Your task to perform on an android device: open chrome privacy settings Image 0: 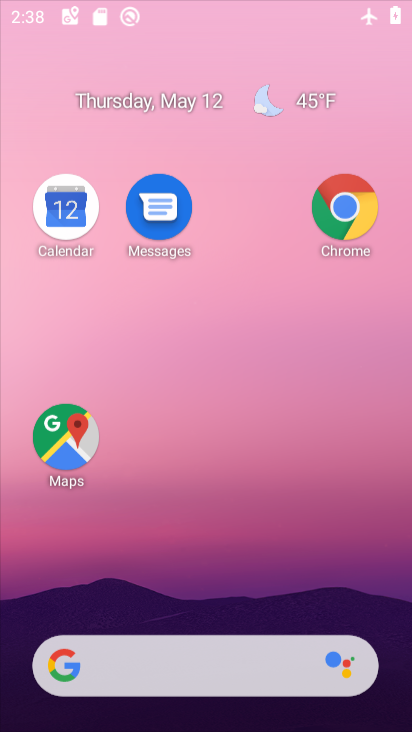
Step 0: click (211, 402)
Your task to perform on an android device: open chrome privacy settings Image 1: 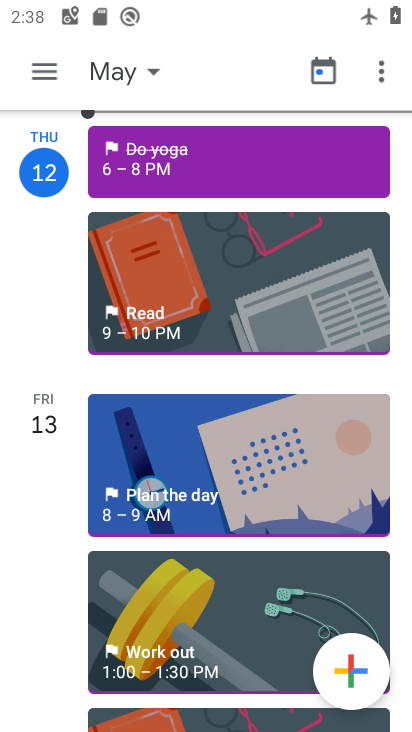
Step 1: drag from (267, 661) to (264, 308)
Your task to perform on an android device: open chrome privacy settings Image 2: 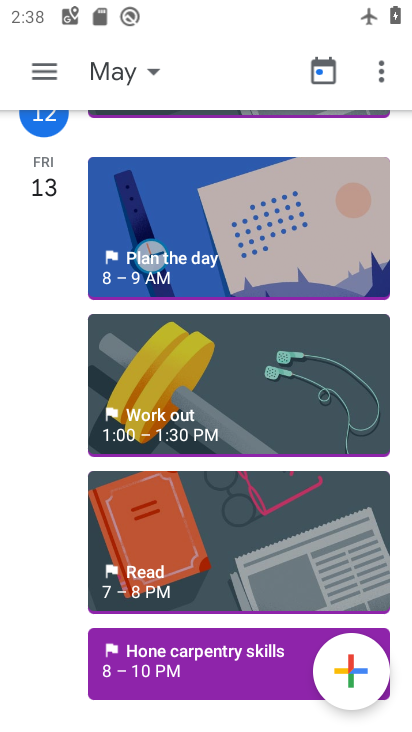
Step 2: drag from (215, 640) to (212, 321)
Your task to perform on an android device: open chrome privacy settings Image 3: 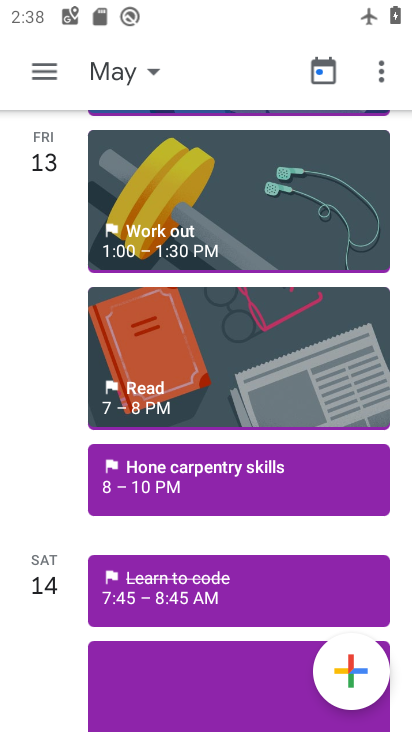
Step 3: drag from (215, 237) to (256, 728)
Your task to perform on an android device: open chrome privacy settings Image 4: 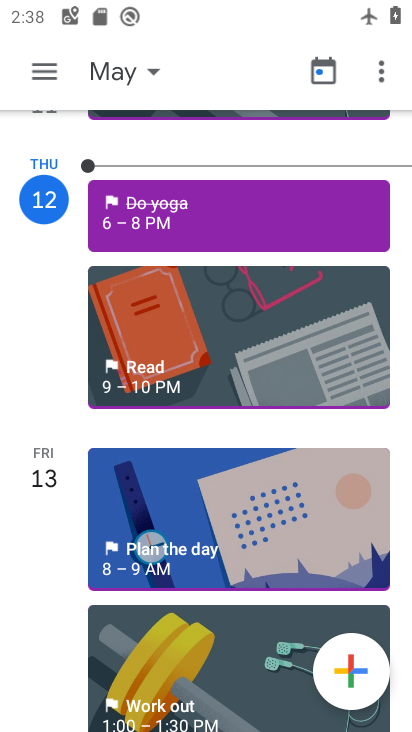
Step 4: press home button
Your task to perform on an android device: open chrome privacy settings Image 5: 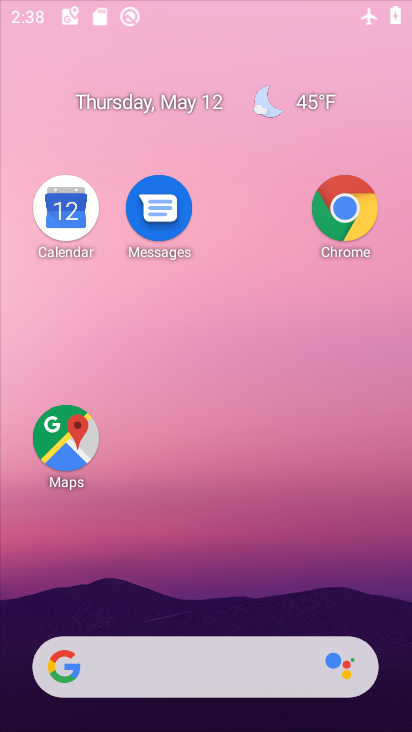
Step 5: drag from (214, 686) to (300, 196)
Your task to perform on an android device: open chrome privacy settings Image 6: 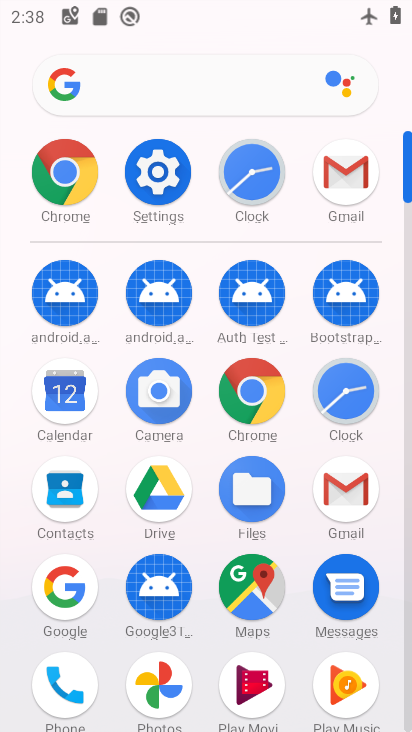
Step 6: click (251, 388)
Your task to perform on an android device: open chrome privacy settings Image 7: 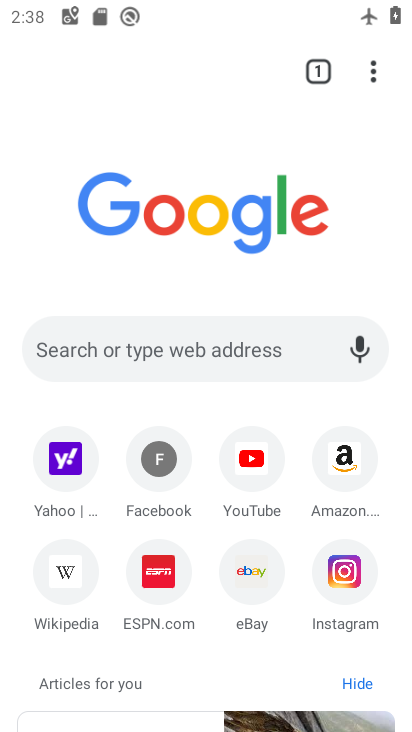
Step 7: drag from (375, 77) to (171, 598)
Your task to perform on an android device: open chrome privacy settings Image 8: 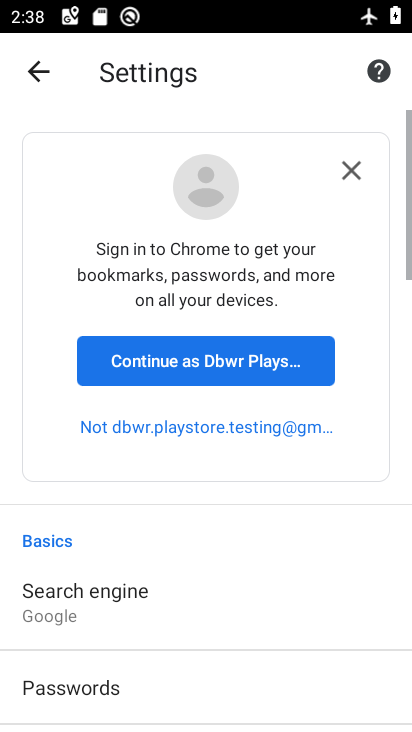
Step 8: drag from (169, 588) to (254, 55)
Your task to perform on an android device: open chrome privacy settings Image 9: 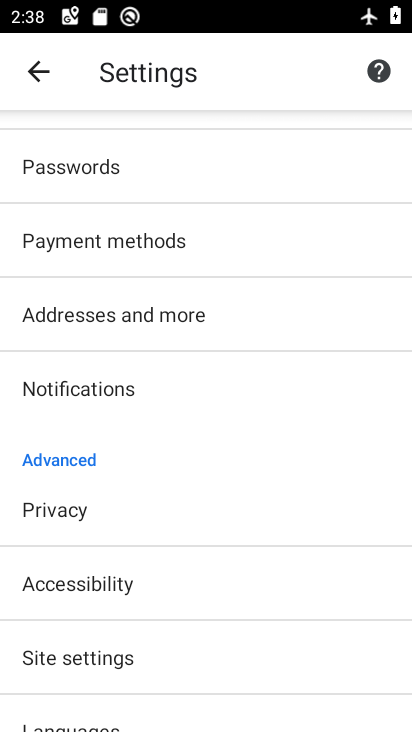
Step 9: click (127, 657)
Your task to perform on an android device: open chrome privacy settings Image 10: 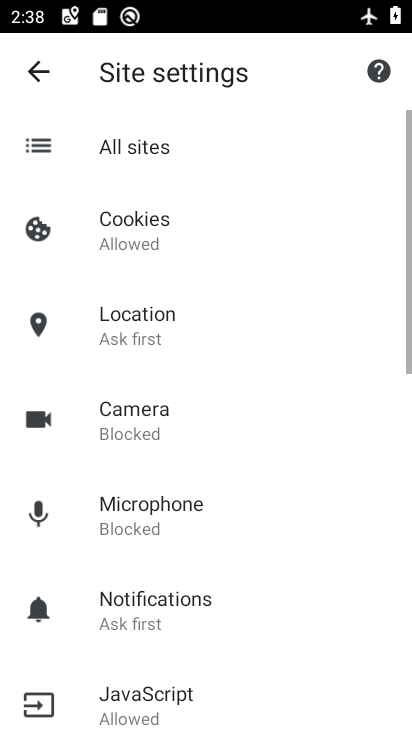
Step 10: drag from (127, 657) to (223, 178)
Your task to perform on an android device: open chrome privacy settings Image 11: 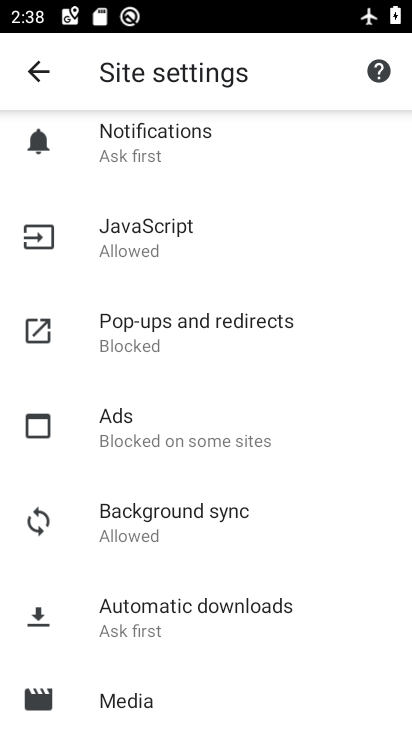
Step 11: drag from (179, 200) to (236, 730)
Your task to perform on an android device: open chrome privacy settings Image 12: 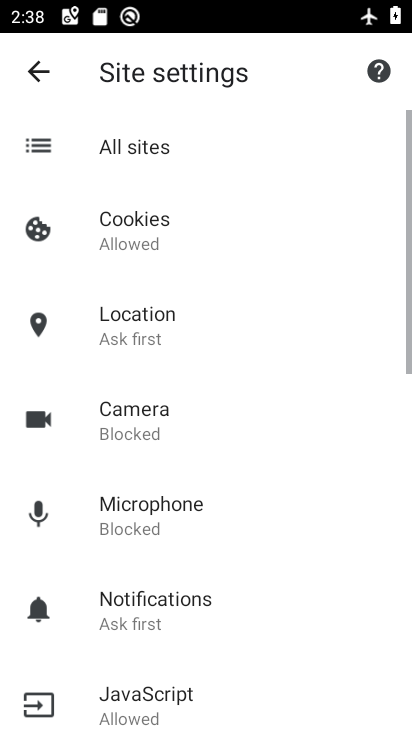
Step 12: click (42, 72)
Your task to perform on an android device: open chrome privacy settings Image 13: 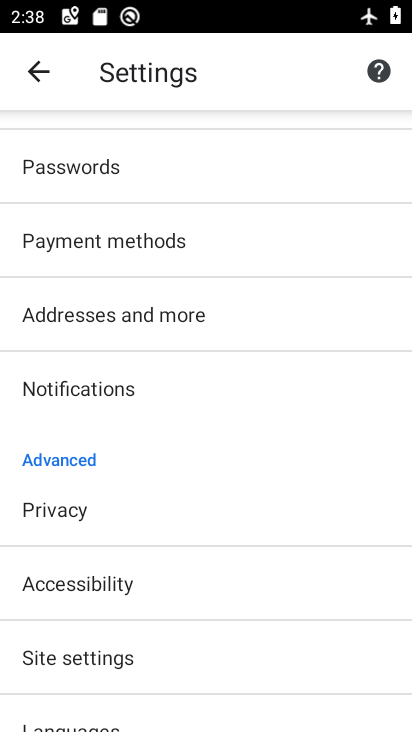
Step 13: click (132, 511)
Your task to perform on an android device: open chrome privacy settings Image 14: 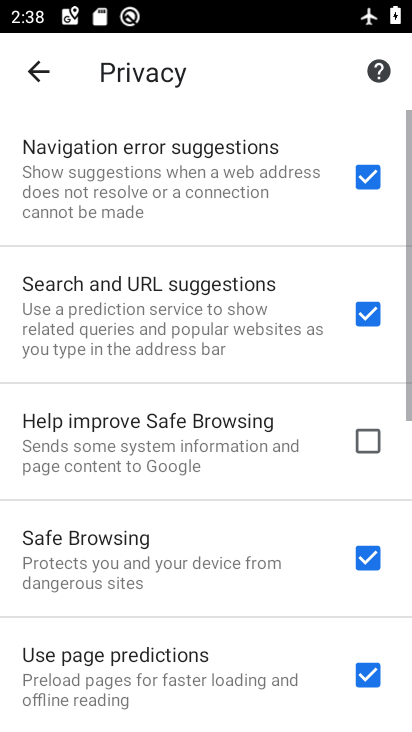
Step 14: task complete